Your task to perform on an android device: find which apps use the phone's location Image 0: 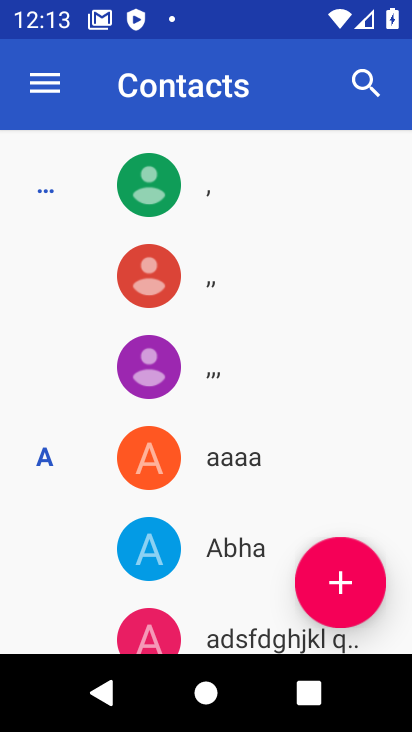
Step 0: press home button
Your task to perform on an android device: find which apps use the phone's location Image 1: 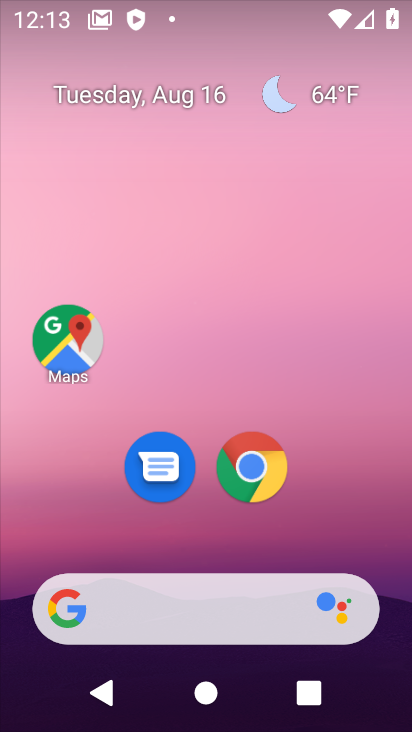
Step 1: drag from (367, 518) to (360, 137)
Your task to perform on an android device: find which apps use the phone's location Image 2: 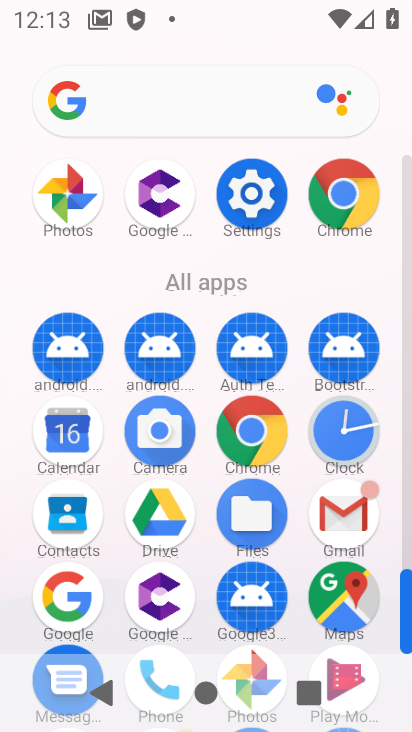
Step 2: click (258, 195)
Your task to perform on an android device: find which apps use the phone's location Image 3: 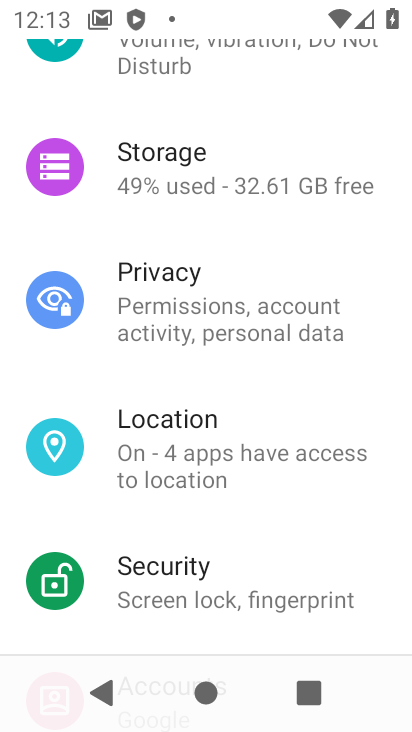
Step 3: click (349, 458)
Your task to perform on an android device: find which apps use the phone's location Image 4: 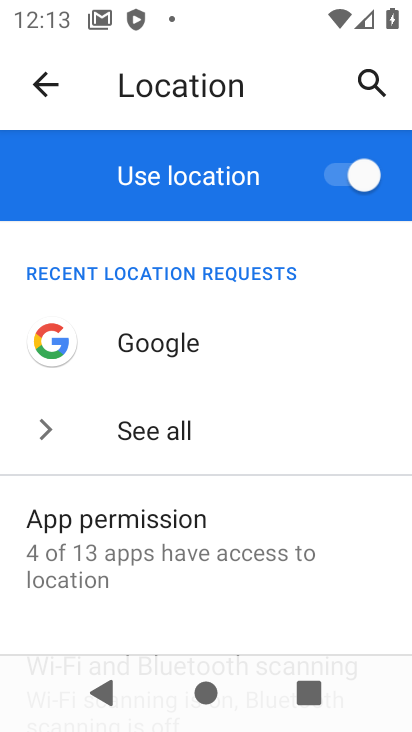
Step 4: click (279, 535)
Your task to perform on an android device: find which apps use the phone's location Image 5: 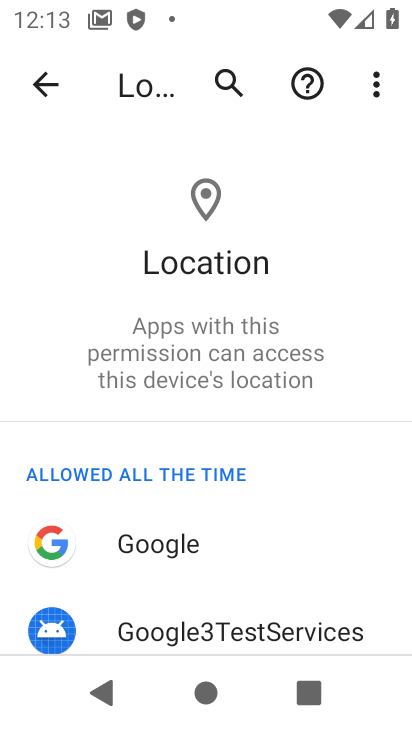
Step 5: drag from (282, 542) to (303, 450)
Your task to perform on an android device: find which apps use the phone's location Image 6: 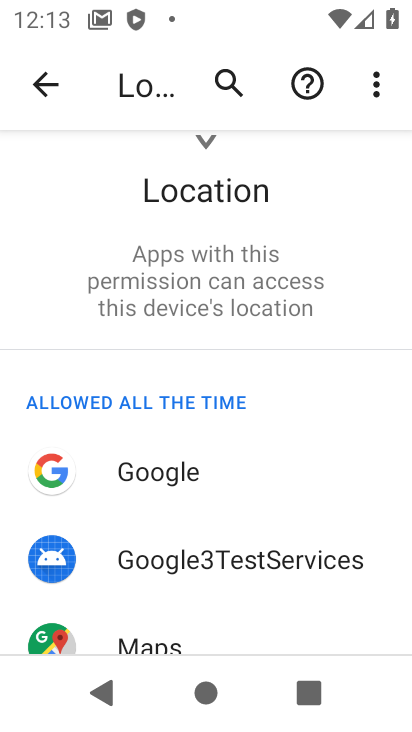
Step 6: drag from (296, 575) to (312, 477)
Your task to perform on an android device: find which apps use the phone's location Image 7: 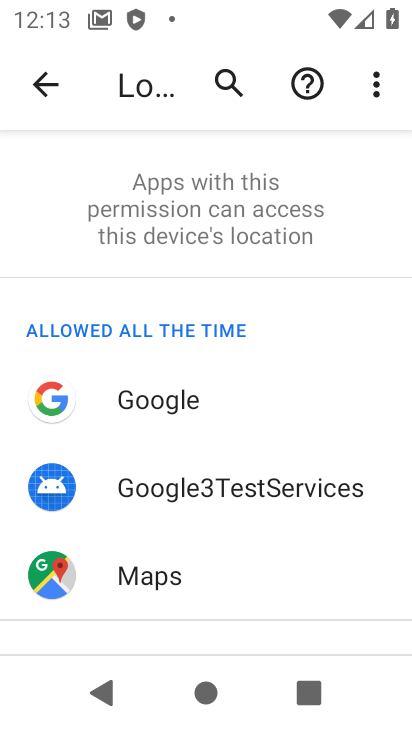
Step 7: drag from (318, 541) to (322, 431)
Your task to perform on an android device: find which apps use the phone's location Image 8: 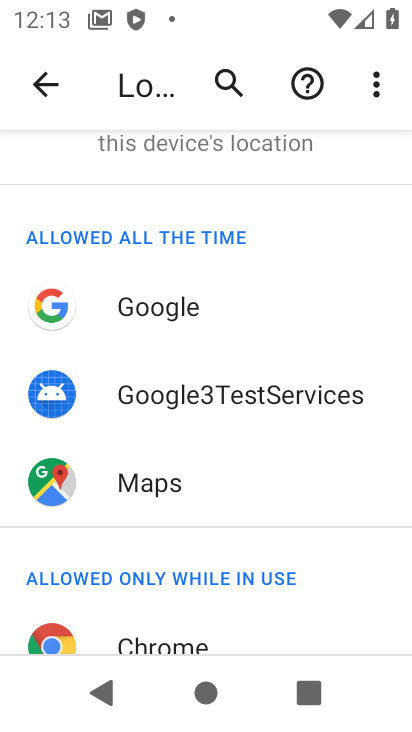
Step 8: drag from (330, 592) to (329, 462)
Your task to perform on an android device: find which apps use the phone's location Image 9: 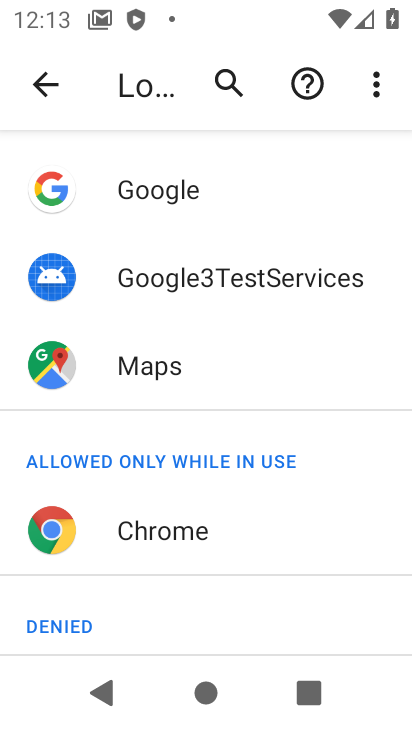
Step 9: drag from (309, 576) to (317, 450)
Your task to perform on an android device: find which apps use the phone's location Image 10: 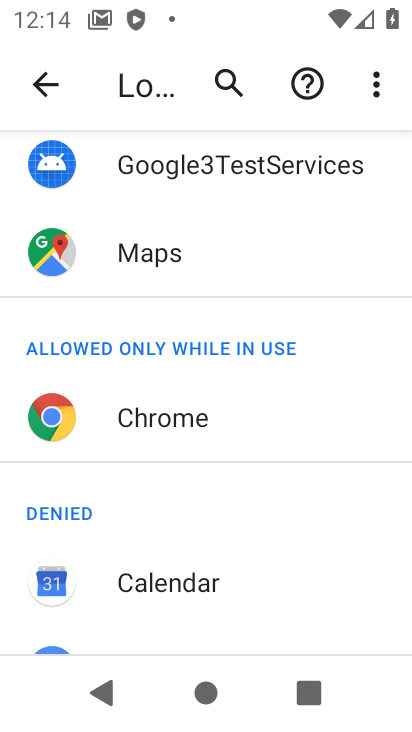
Step 10: drag from (305, 583) to (317, 431)
Your task to perform on an android device: find which apps use the phone's location Image 11: 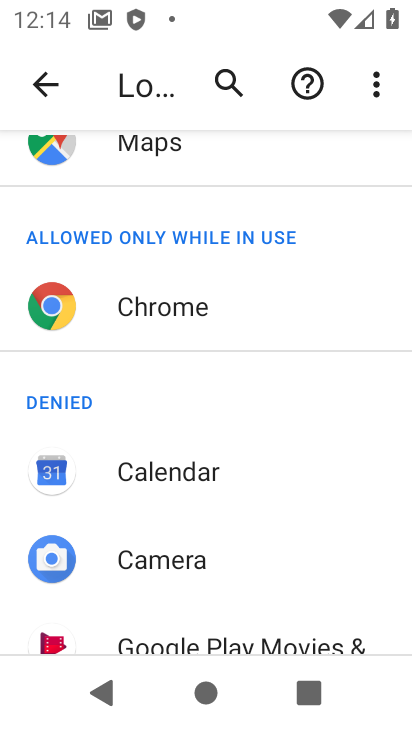
Step 11: drag from (297, 566) to (307, 416)
Your task to perform on an android device: find which apps use the phone's location Image 12: 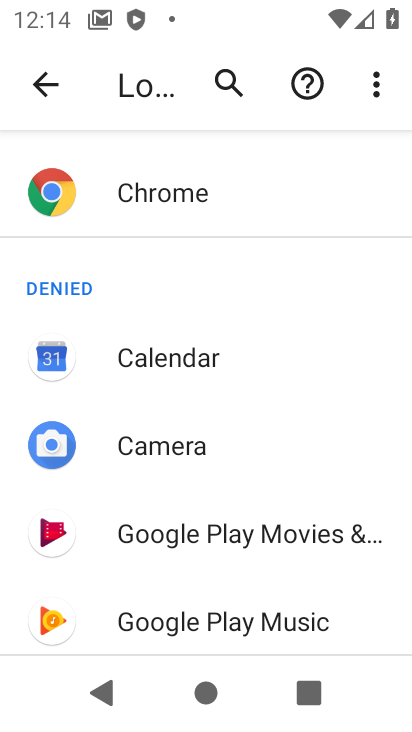
Step 12: drag from (292, 587) to (292, 446)
Your task to perform on an android device: find which apps use the phone's location Image 13: 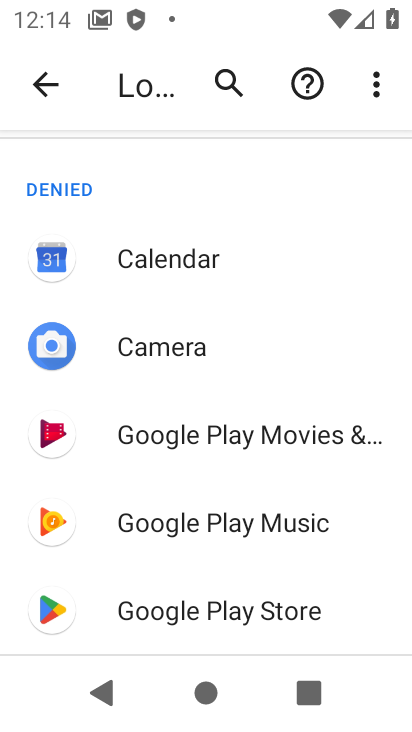
Step 13: drag from (331, 565) to (324, 375)
Your task to perform on an android device: find which apps use the phone's location Image 14: 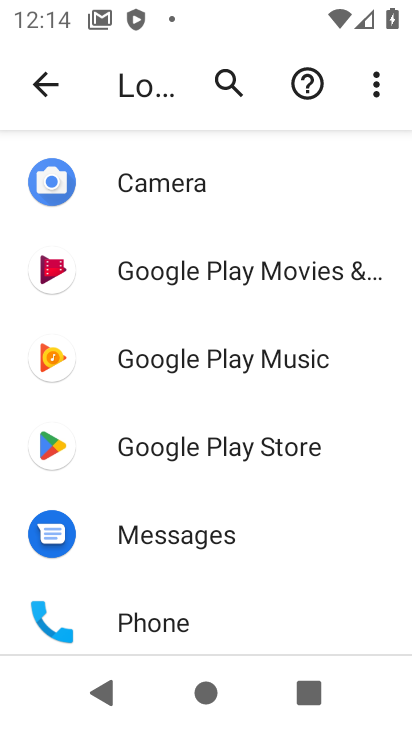
Step 14: drag from (287, 543) to (282, 374)
Your task to perform on an android device: find which apps use the phone's location Image 15: 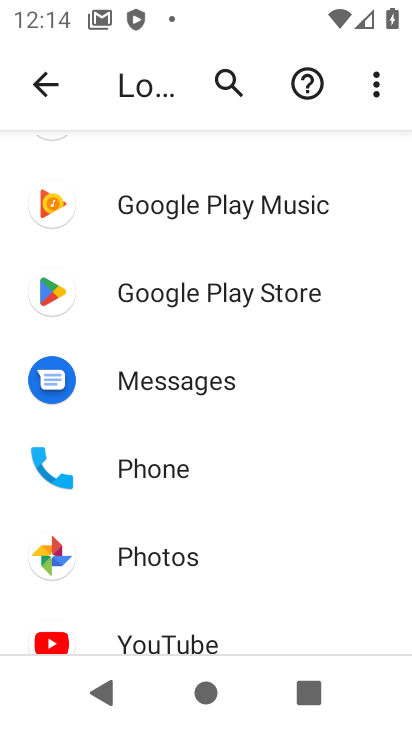
Step 15: click (257, 567)
Your task to perform on an android device: find which apps use the phone's location Image 16: 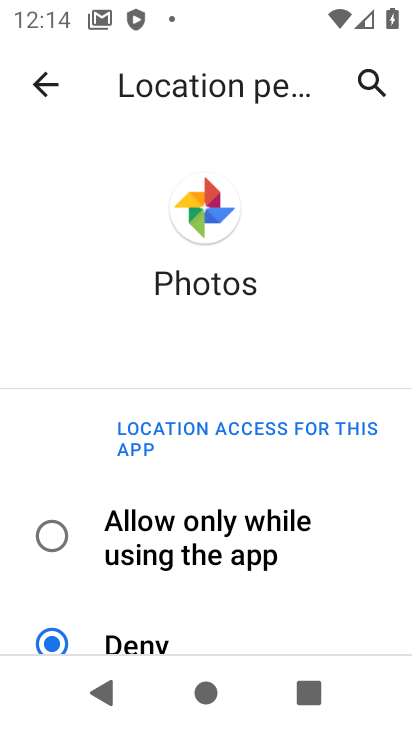
Step 16: click (71, 529)
Your task to perform on an android device: find which apps use the phone's location Image 17: 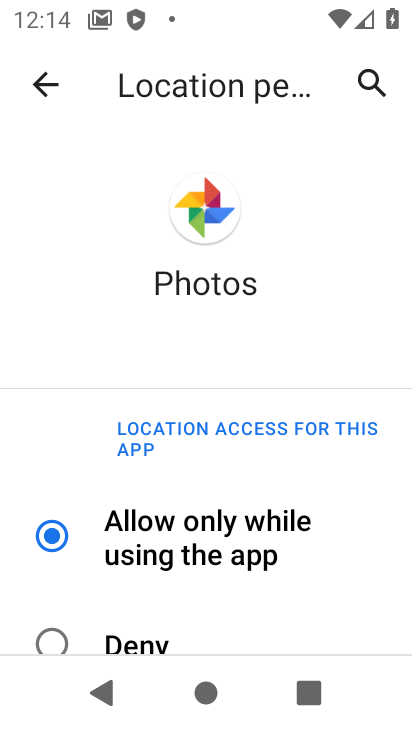
Step 17: task complete